Your task to perform on an android device: turn on data saver in the chrome app Image 0: 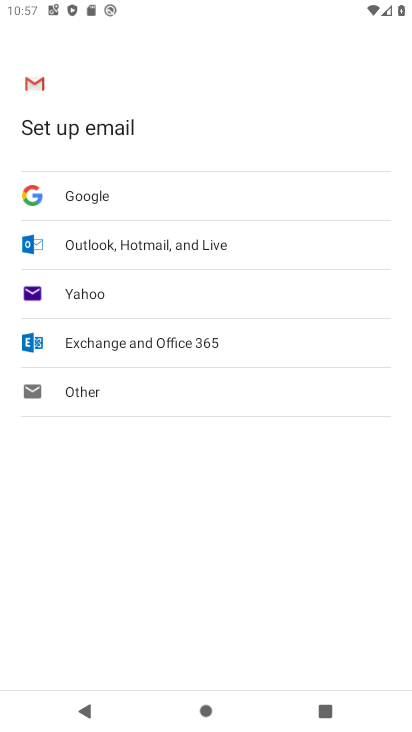
Step 0: press home button
Your task to perform on an android device: turn on data saver in the chrome app Image 1: 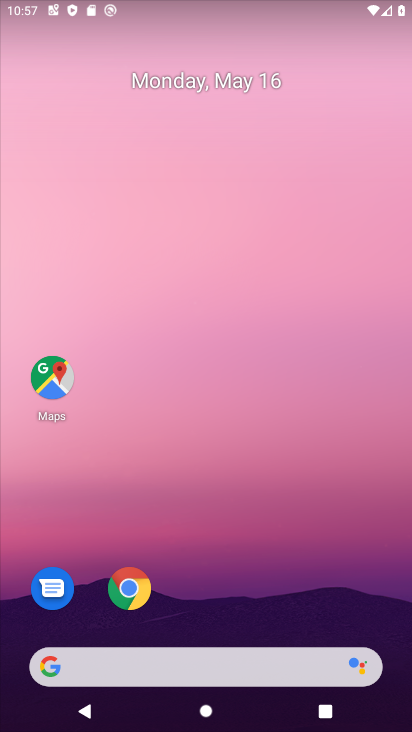
Step 1: drag from (372, 604) to (379, 186)
Your task to perform on an android device: turn on data saver in the chrome app Image 2: 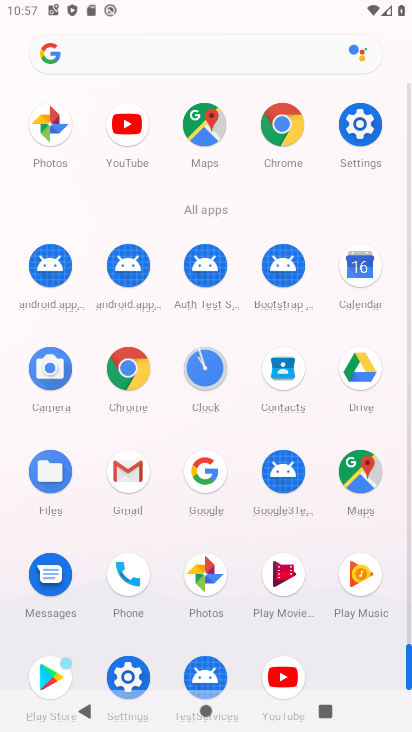
Step 2: click (285, 151)
Your task to perform on an android device: turn on data saver in the chrome app Image 3: 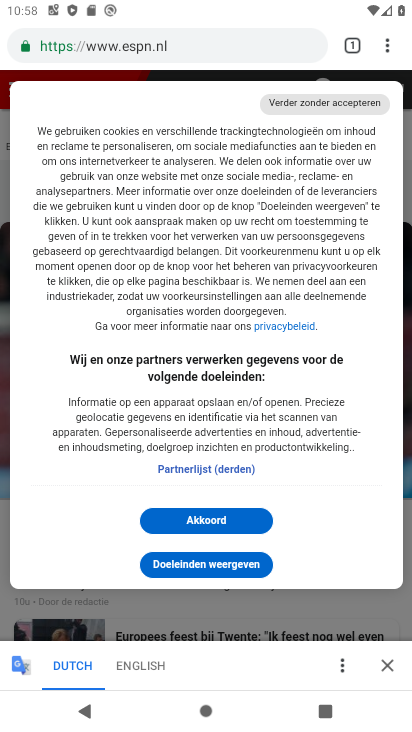
Step 3: click (388, 47)
Your task to perform on an android device: turn on data saver in the chrome app Image 4: 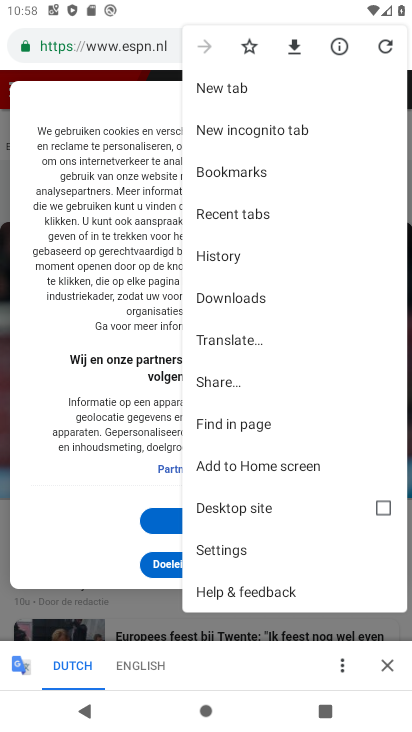
Step 4: click (235, 553)
Your task to perform on an android device: turn on data saver in the chrome app Image 5: 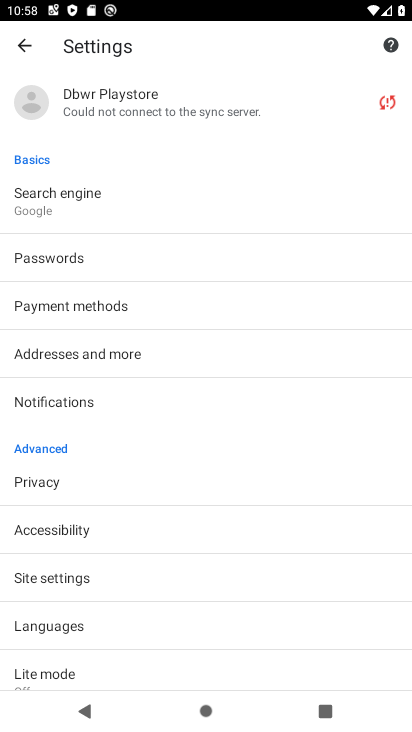
Step 5: drag from (335, 607) to (350, 347)
Your task to perform on an android device: turn on data saver in the chrome app Image 6: 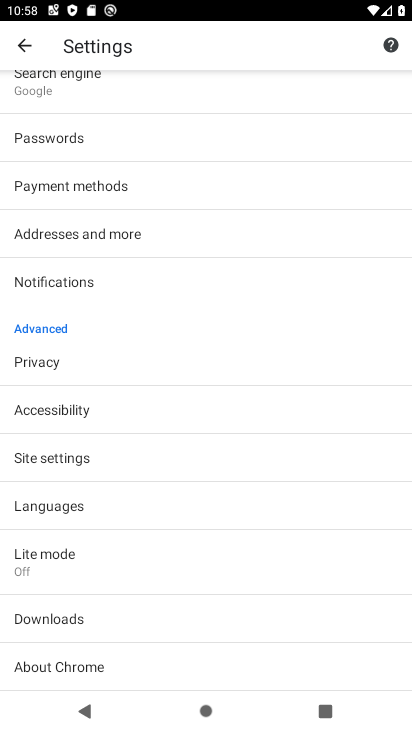
Step 6: drag from (301, 620) to (309, 469)
Your task to perform on an android device: turn on data saver in the chrome app Image 7: 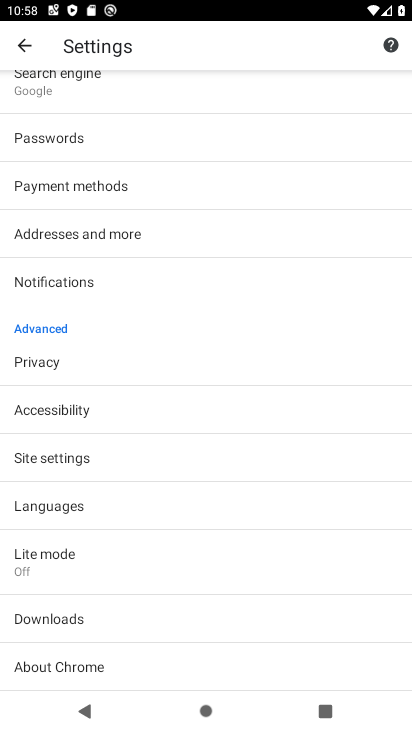
Step 7: drag from (325, 306) to (301, 488)
Your task to perform on an android device: turn on data saver in the chrome app Image 8: 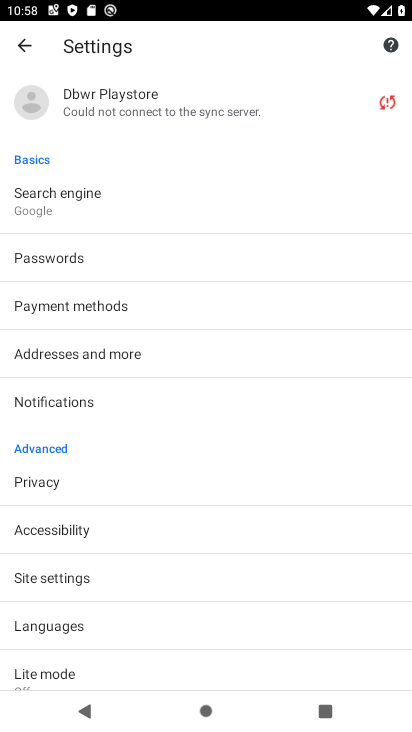
Step 8: drag from (275, 538) to (282, 306)
Your task to perform on an android device: turn on data saver in the chrome app Image 9: 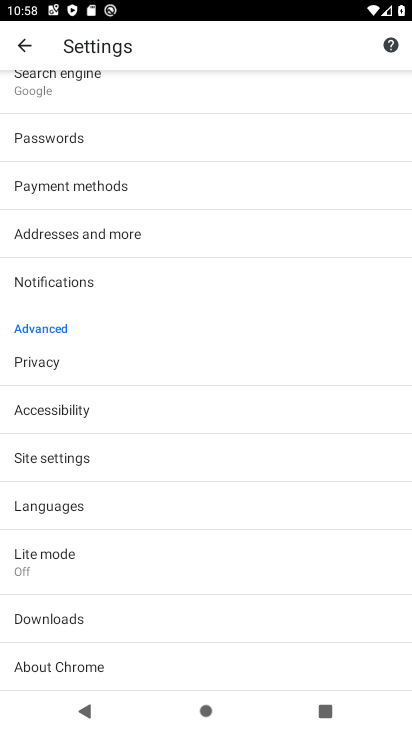
Step 9: drag from (243, 569) to (258, 350)
Your task to perform on an android device: turn on data saver in the chrome app Image 10: 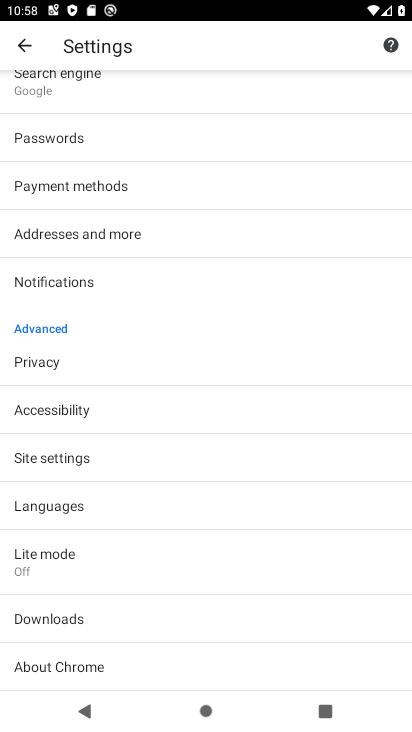
Step 10: click (208, 580)
Your task to perform on an android device: turn on data saver in the chrome app Image 11: 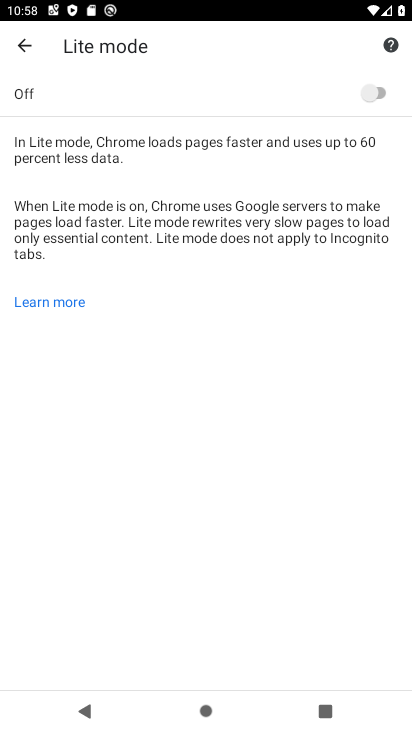
Step 11: click (364, 93)
Your task to perform on an android device: turn on data saver in the chrome app Image 12: 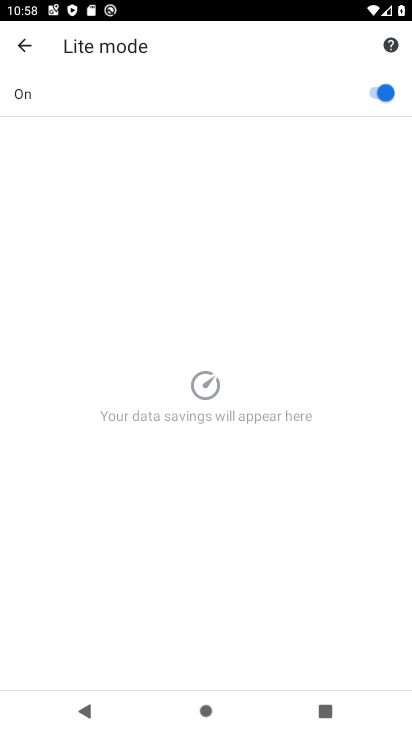
Step 12: task complete